Your task to perform on an android device: turn off notifications settings in the gmail app Image 0: 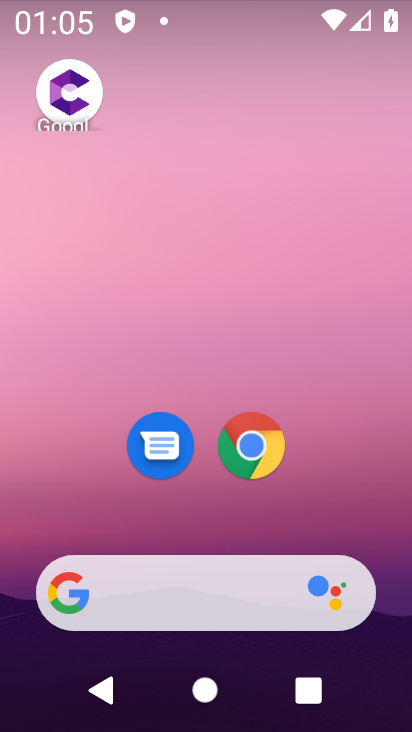
Step 0: drag from (188, 529) to (213, 32)
Your task to perform on an android device: turn off notifications settings in the gmail app Image 1: 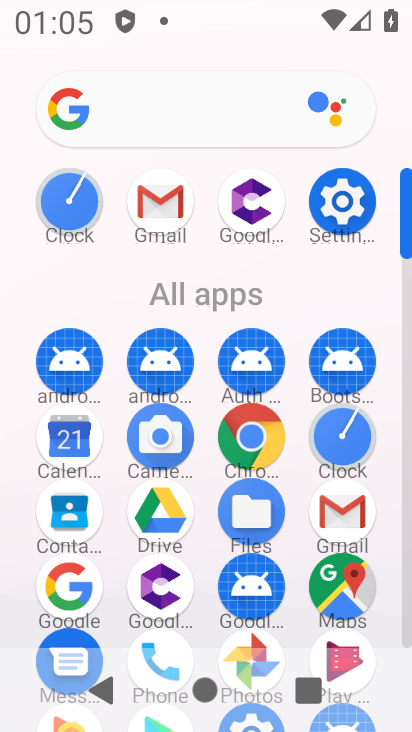
Step 1: click (328, 507)
Your task to perform on an android device: turn off notifications settings in the gmail app Image 2: 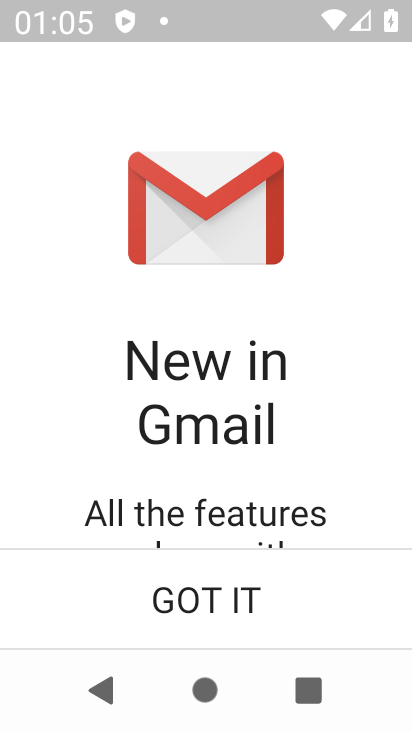
Step 2: click (169, 592)
Your task to perform on an android device: turn off notifications settings in the gmail app Image 3: 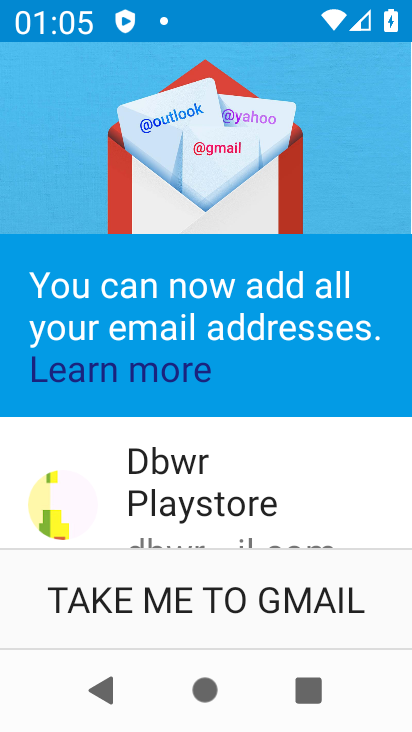
Step 3: click (169, 592)
Your task to perform on an android device: turn off notifications settings in the gmail app Image 4: 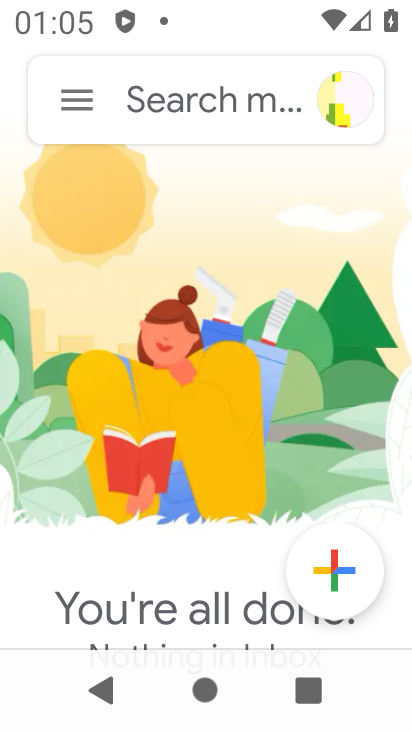
Step 4: click (58, 107)
Your task to perform on an android device: turn off notifications settings in the gmail app Image 5: 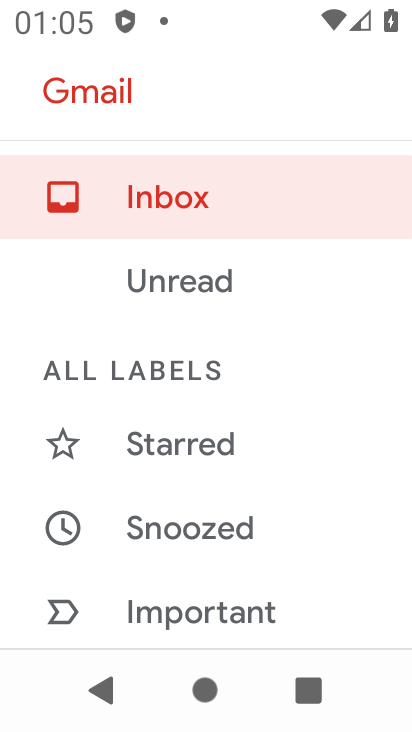
Step 5: drag from (89, 609) to (280, 0)
Your task to perform on an android device: turn off notifications settings in the gmail app Image 6: 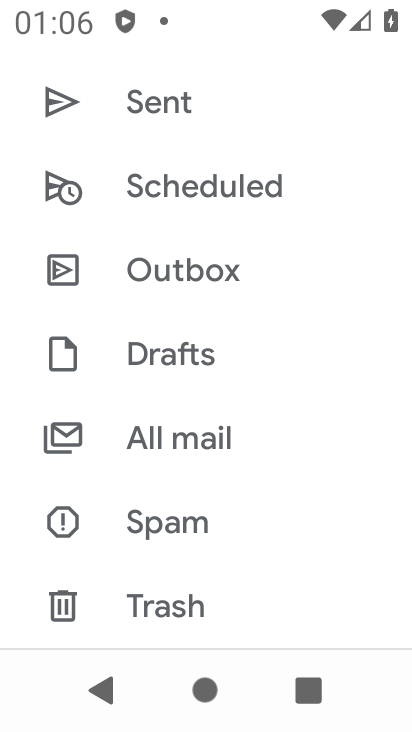
Step 6: drag from (117, 593) to (160, 278)
Your task to perform on an android device: turn off notifications settings in the gmail app Image 7: 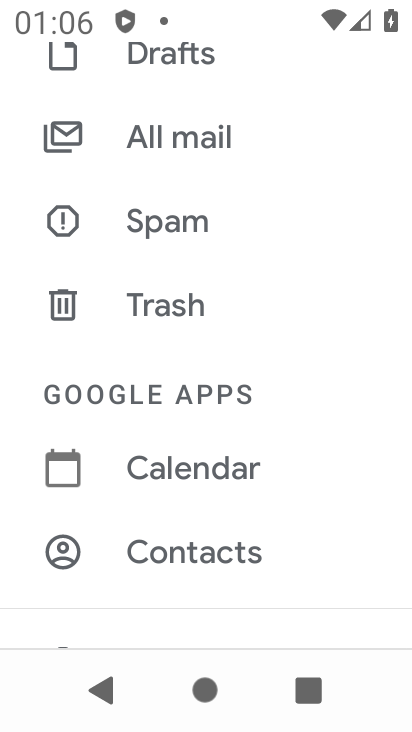
Step 7: drag from (179, 609) to (213, 325)
Your task to perform on an android device: turn off notifications settings in the gmail app Image 8: 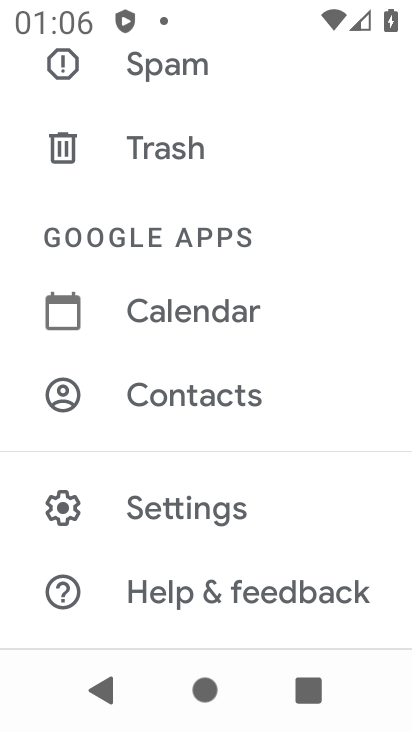
Step 8: click (205, 535)
Your task to perform on an android device: turn off notifications settings in the gmail app Image 9: 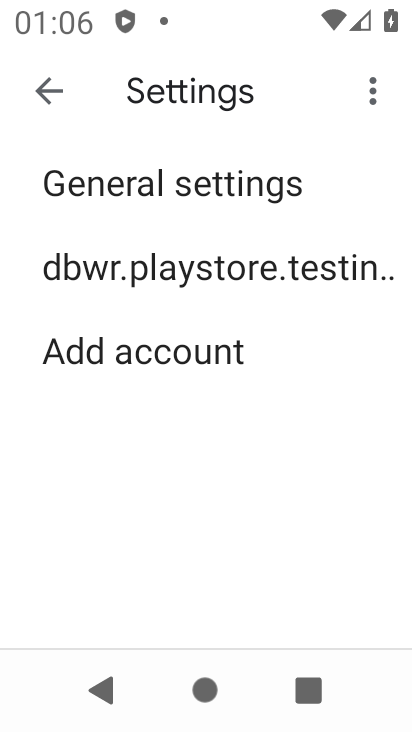
Step 9: click (294, 255)
Your task to perform on an android device: turn off notifications settings in the gmail app Image 10: 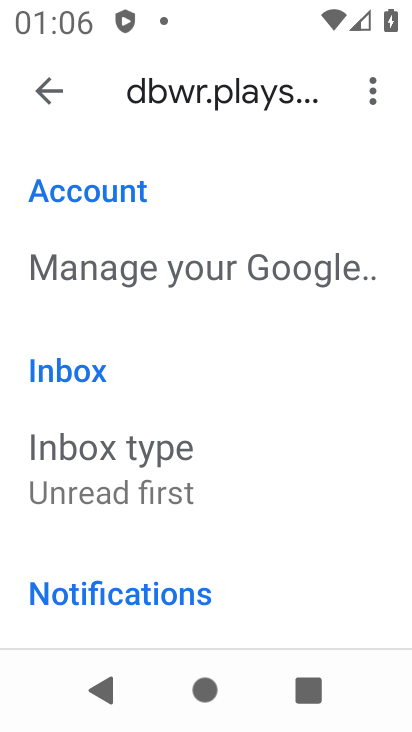
Step 10: drag from (267, 596) to (250, 405)
Your task to perform on an android device: turn off notifications settings in the gmail app Image 11: 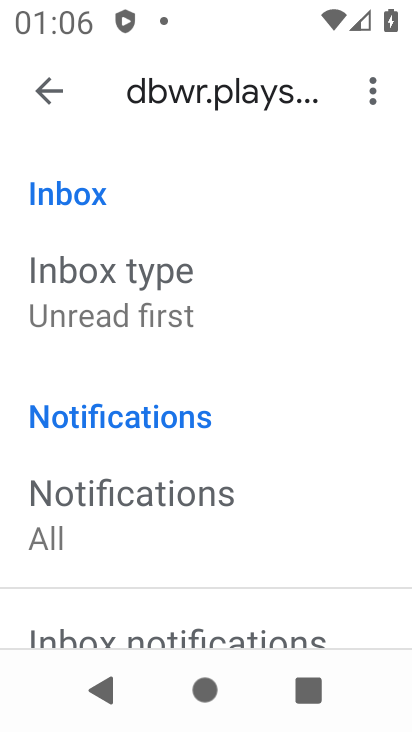
Step 11: click (221, 496)
Your task to perform on an android device: turn off notifications settings in the gmail app Image 12: 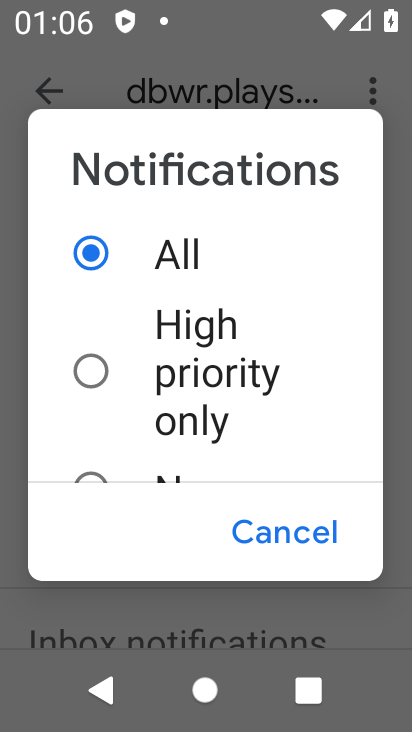
Step 12: click (99, 477)
Your task to perform on an android device: turn off notifications settings in the gmail app Image 13: 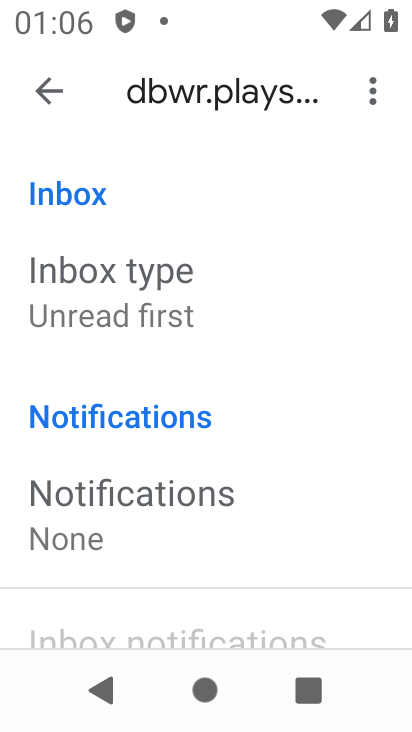
Step 13: task complete